Your task to perform on an android device: Open wifi settings Image 0: 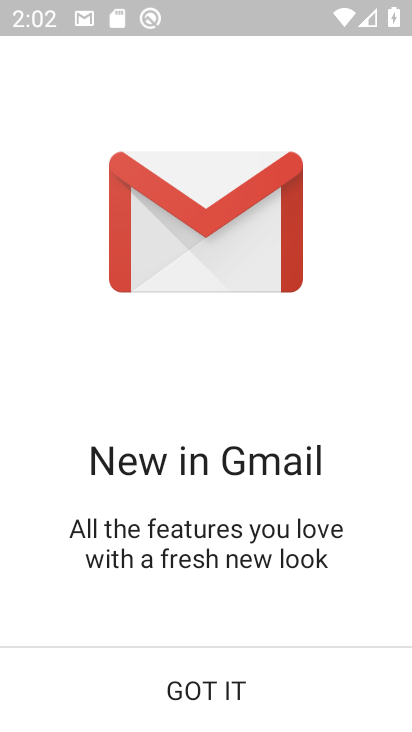
Step 0: click (265, 681)
Your task to perform on an android device: Open wifi settings Image 1: 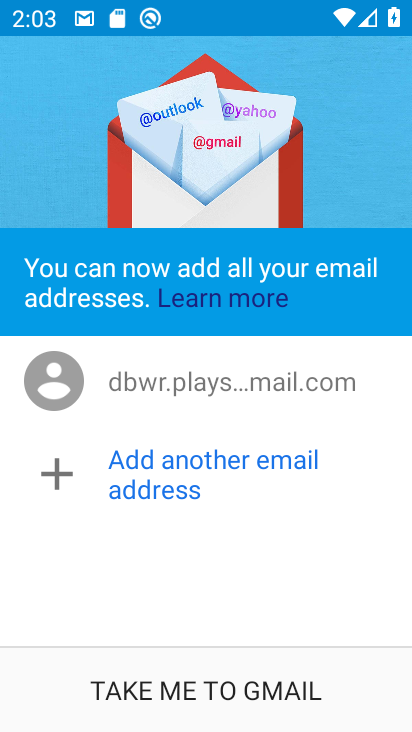
Step 1: click (231, 671)
Your task to perform on an android device: Open wifi settings Image 2: 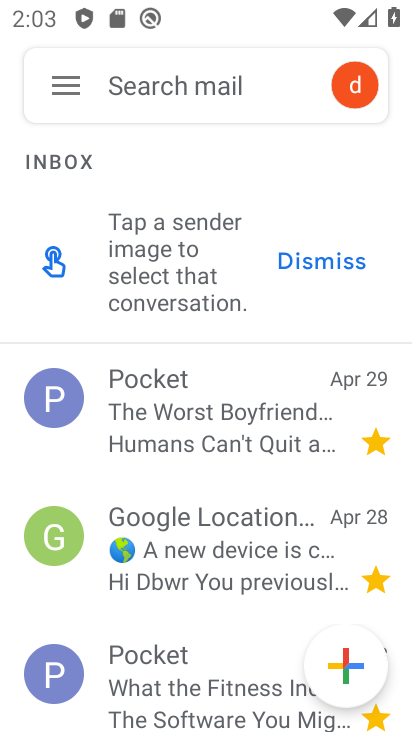
Step 2: press home button
Your task to perform on an android device: Open wifi settings Image 3: 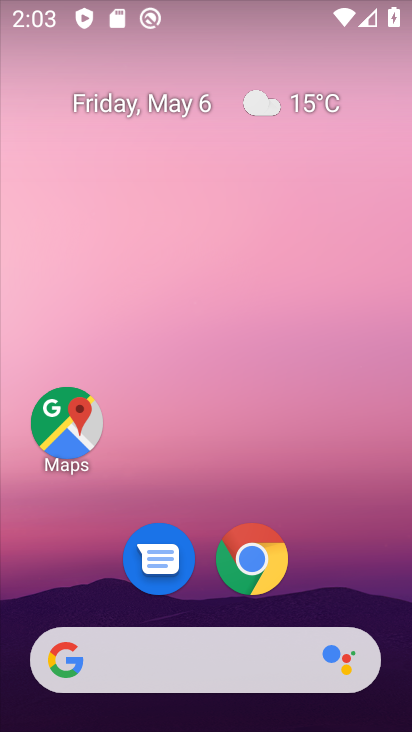
Step 3: drag from (305, 508) to (306, 74)
Your task to perform on an android device: Open wifi settings Image 4: 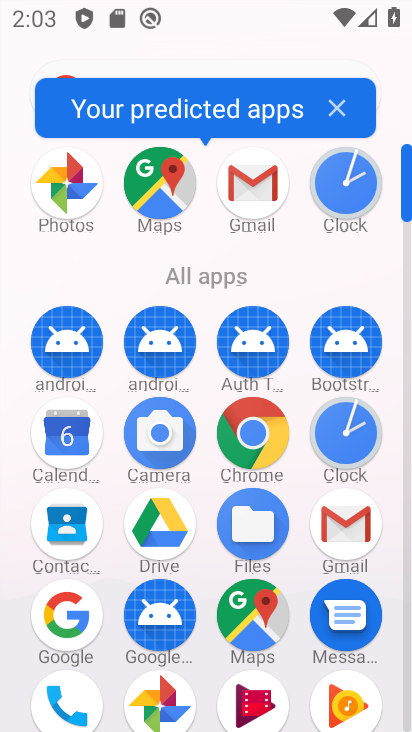
Step 4: click (410, 560)
Your task to perform on an android device: Open wifi settings Image 5: 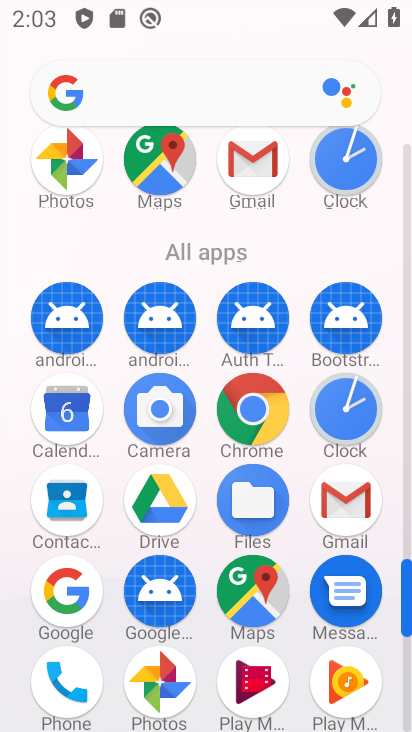
Step 5: click (408, 674)
Your task to perform on an android device: Open wifi settings Image 6: 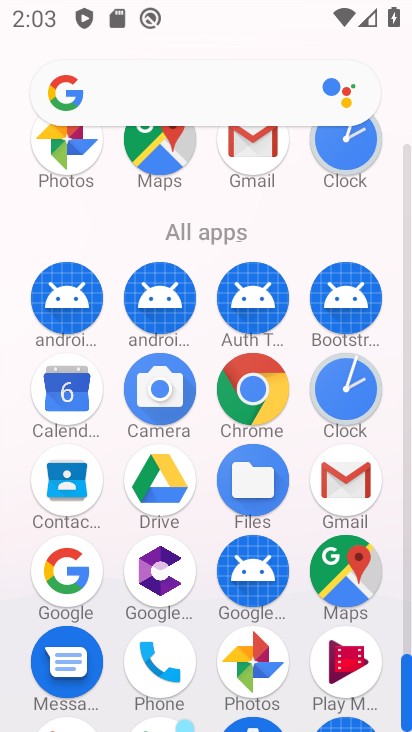
Step 6: click (410, 690)
Your task to perform on an android device: Open wifi settings Image 7: 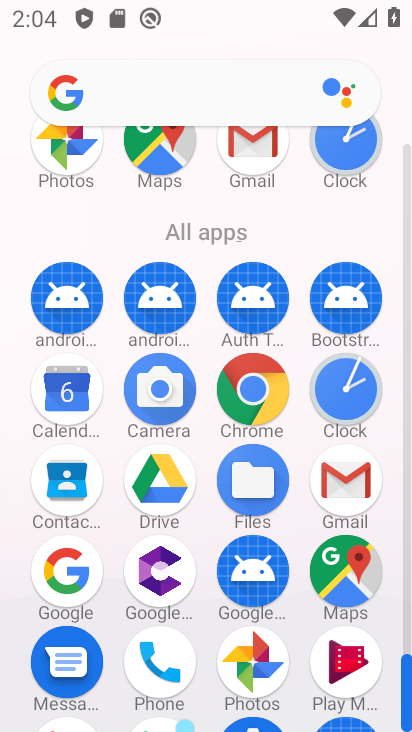
Step 7: click (153, 723)
Your task to perform on an android device: Open wifi settings Image 8: 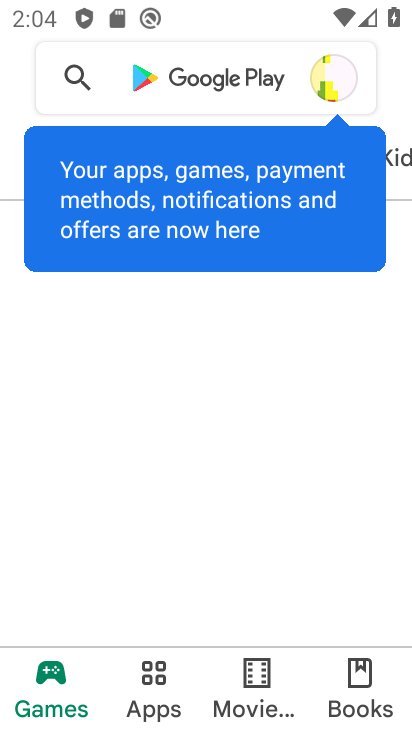
Step 8: press home button
Your task to perform on an android device: Open wifi settings Image 9: 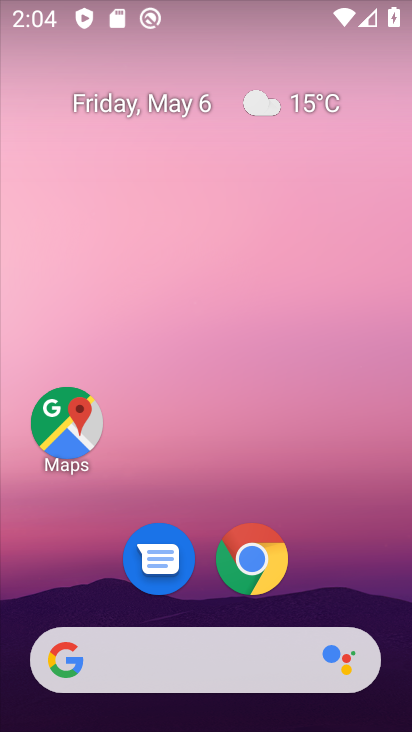
Step 9: drag from (330, 602) to (348, 239)
Your task to perform on an android device: Open wifi settings Image 10: 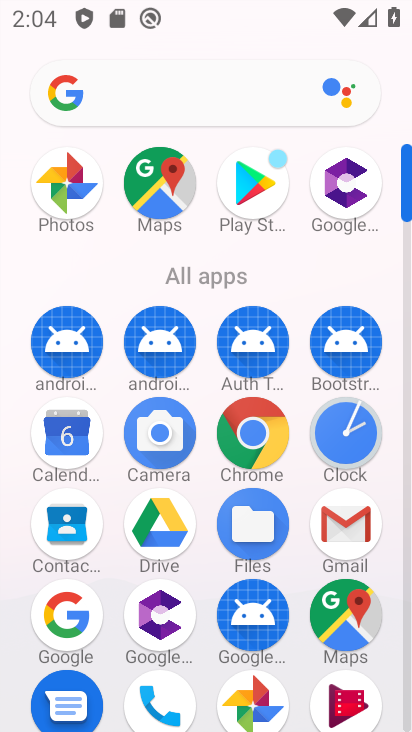
Step 10: click (407, 604)
Your task to perform on an android device: Open wifi settings Image 11: 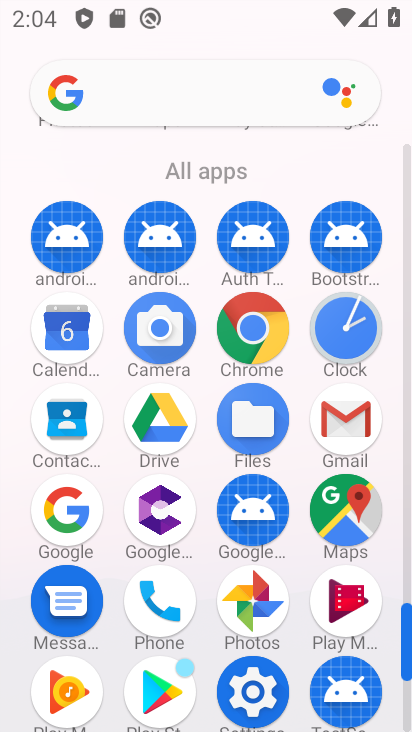
Step 11: click (234, 686)
Your task to perform on an android device: Open wifi settings Image 12: 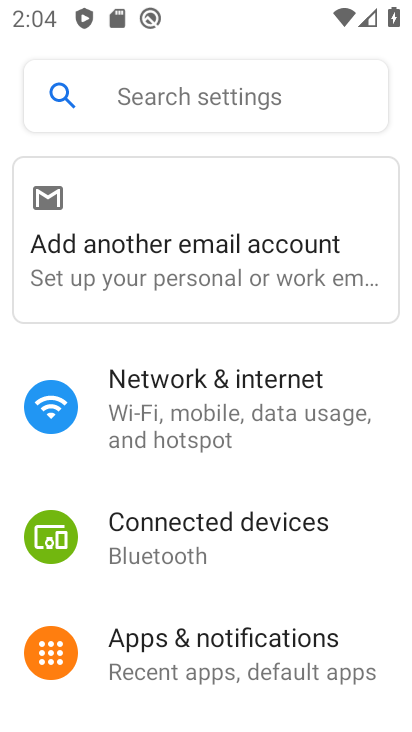
Step 12: click (209, 258)
Your task to perform on an android device: Open wifi settings Image 13: 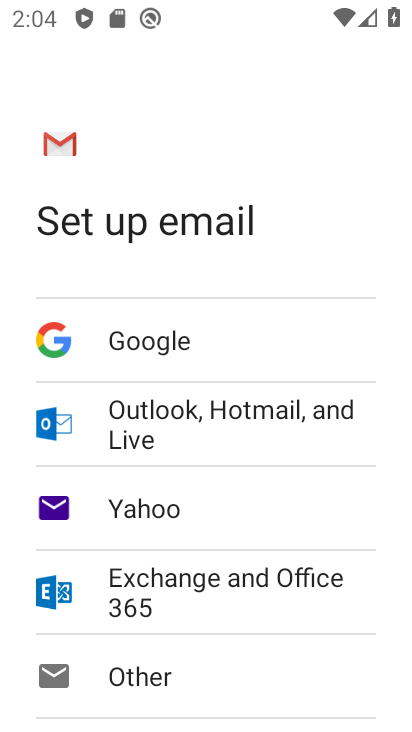
Step 13: task complete